Your task to perform on an android device: Search for 3d printed chess sets on Etsy. Image 0: 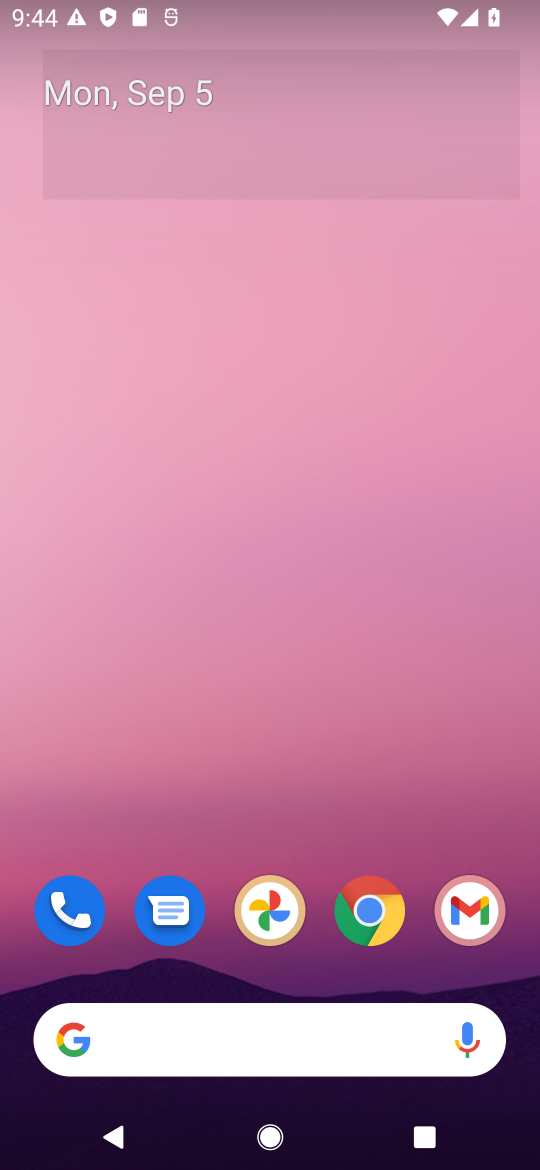
Step 0: click (387, 928)
Your task to perform on an android device: Search for 3d printed chess sets on Etsy. Image 1: 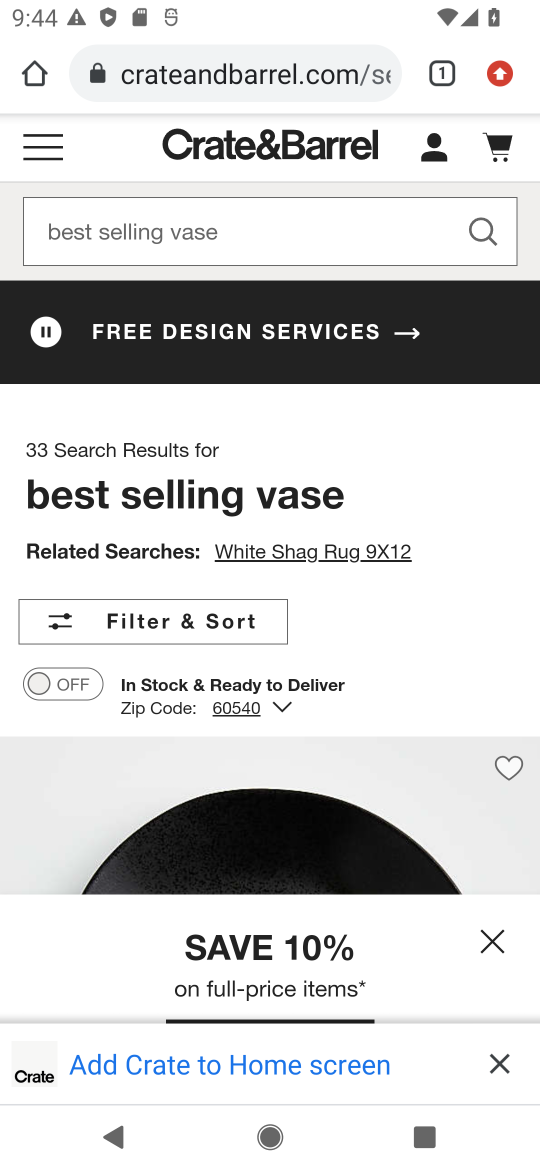
Step 1: click (284, 94)
Your task to perform on an android device: Search for 3d printed chess sets on Etsy. Image 2: 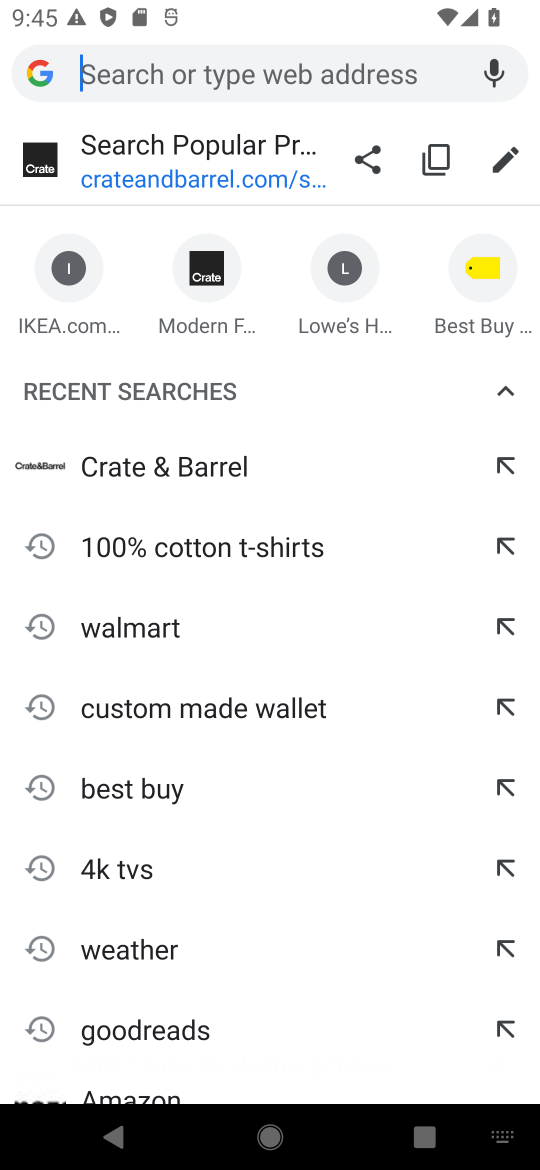
Step 2: click (309, 74)
Your task to perform on an android device: Search for 3d printed chess sets on Etsy. Image 3: 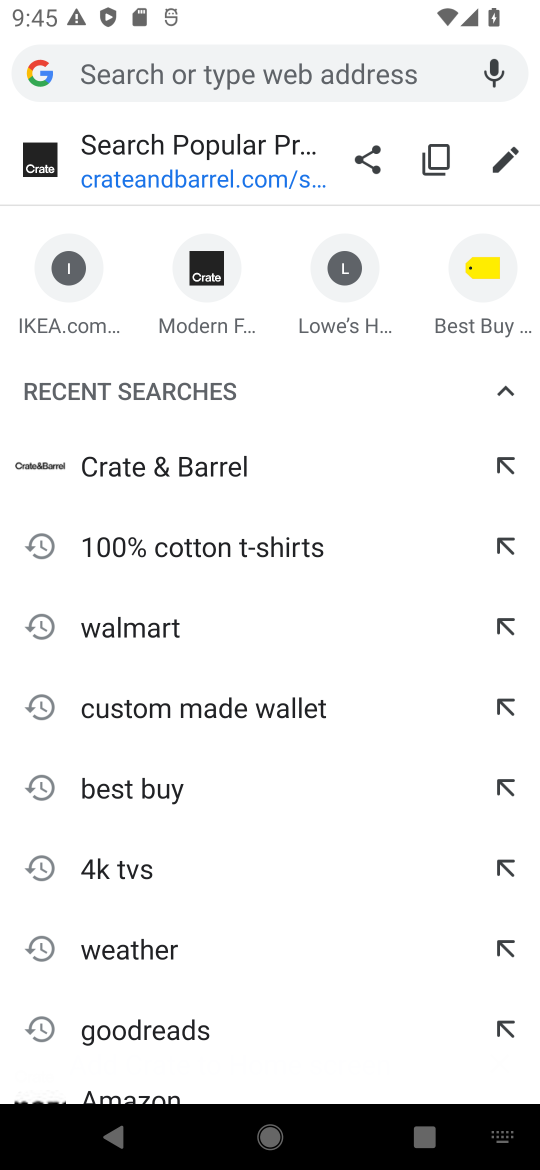
Step 3: type "etsy"
Your task to perform on an android device: Search for 3d printed chess sets on Etsy. Image 4: 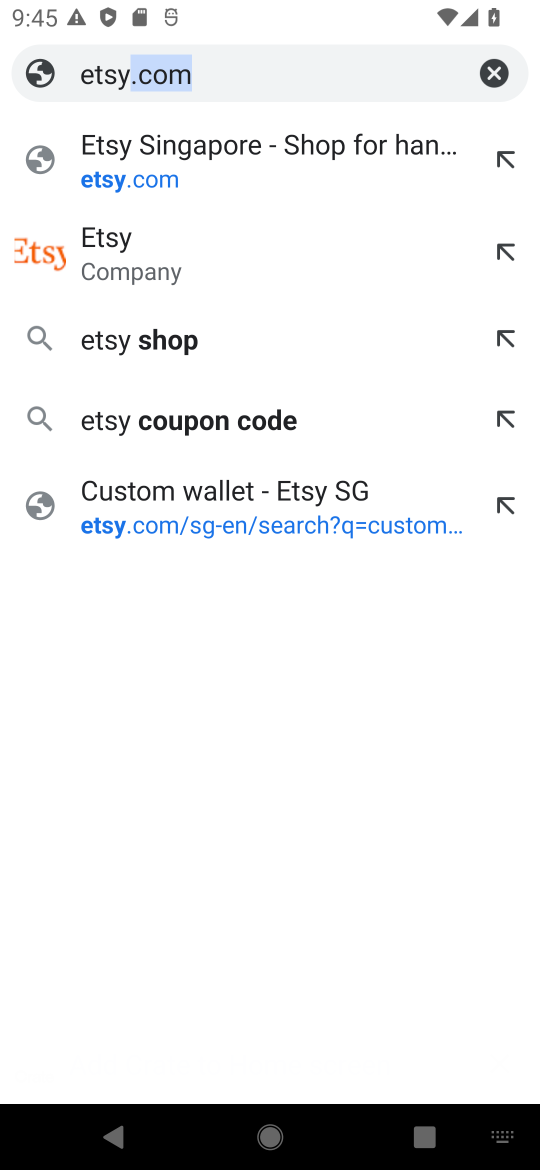
Step 4: click (137, 165)
Your task to perform on an android device: Search for 3d printed chess sets on Etsy. Image 5: 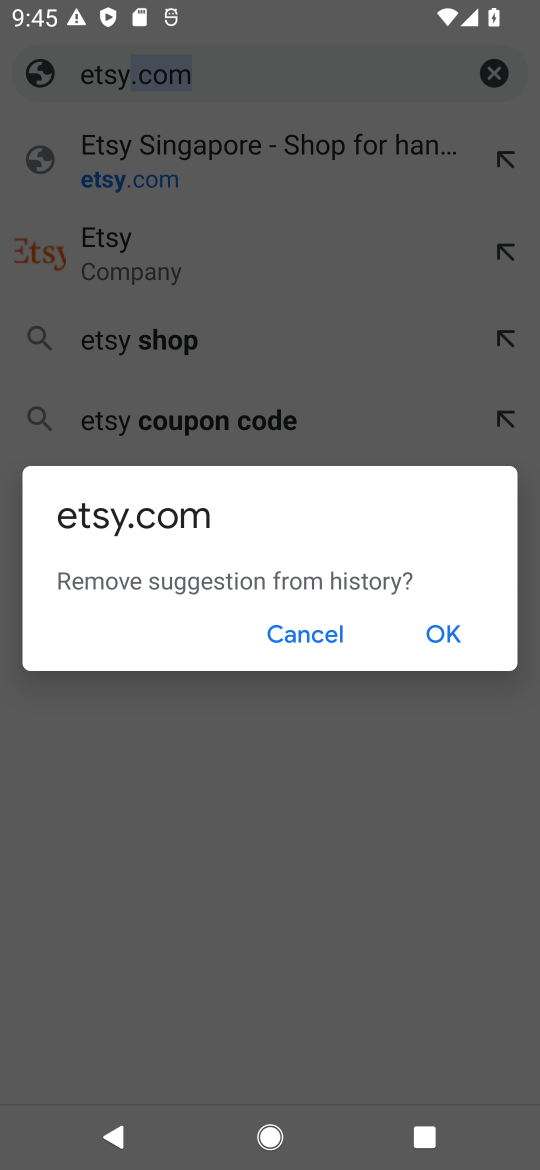
Step 5: click (308, 628)
Your task to perform on an android device: Search for 3d printed chess sets on Etsy. Image 6: 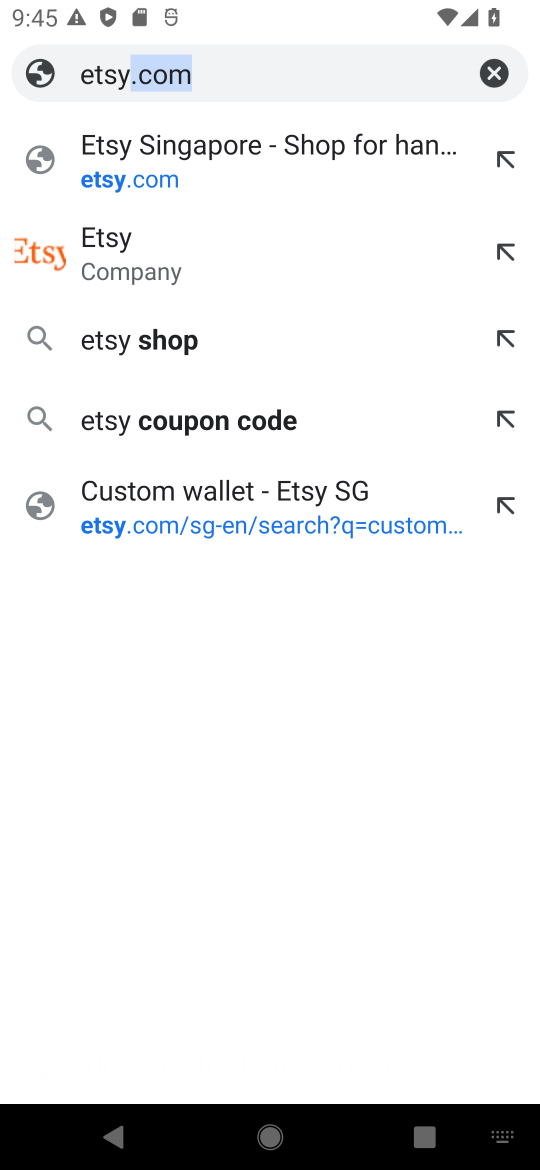
Step 6: click (217, 177)
Your task to perform on an android device: Search for 3d printed chess sets on Etsy. Image 7: 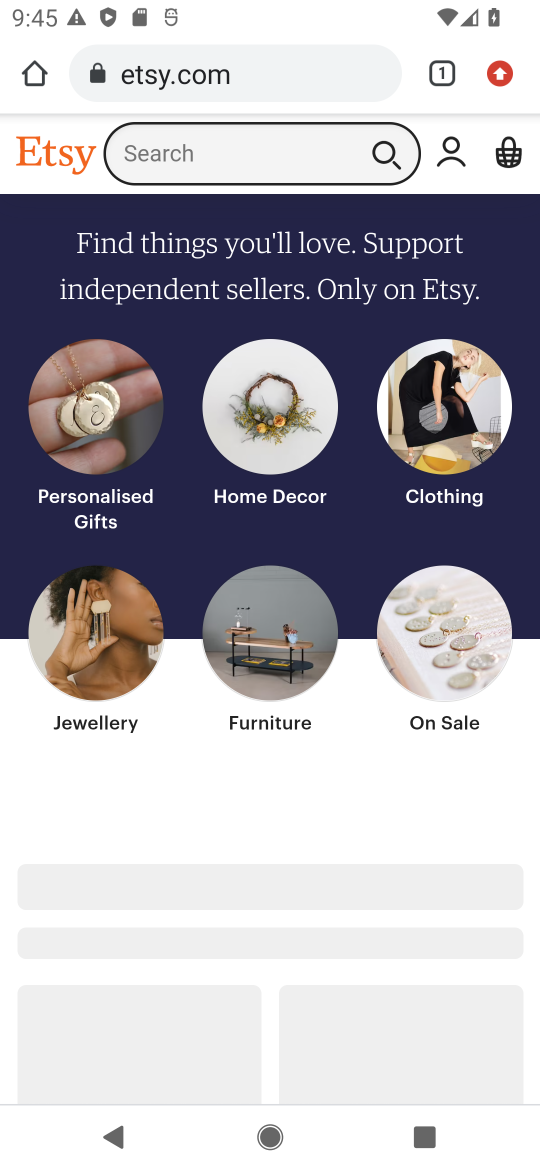
Step 7: click (272, 161)
Your task to perform on an android device: Search for 3d printed chess sets on Etsy. Image 8: 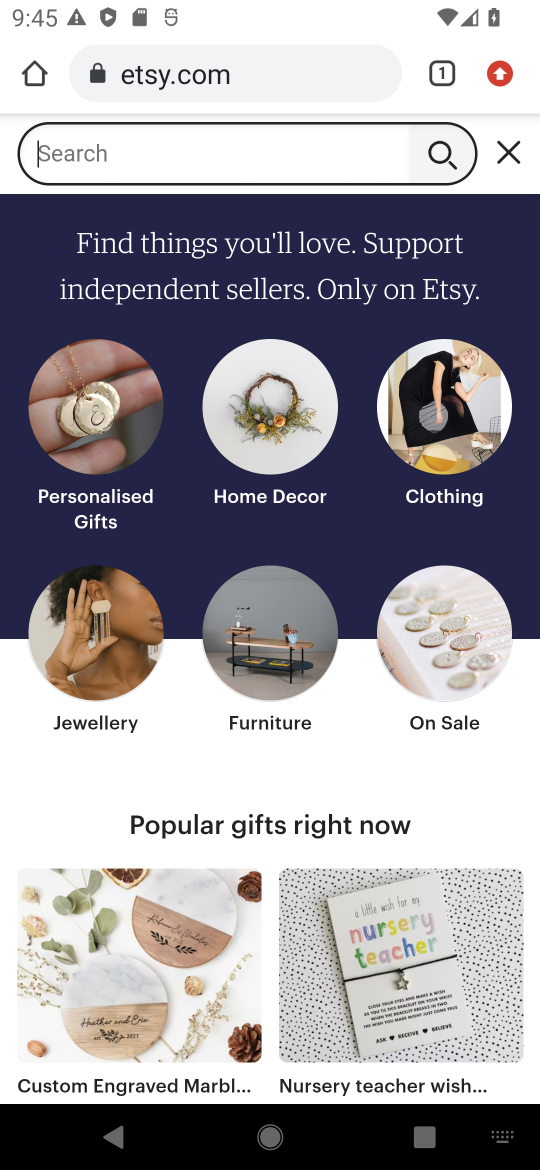
Step 8: type "3d printed chess"
Your task to perform on an android device: Search for 3d printed chess sets on Etsy. Image 9: 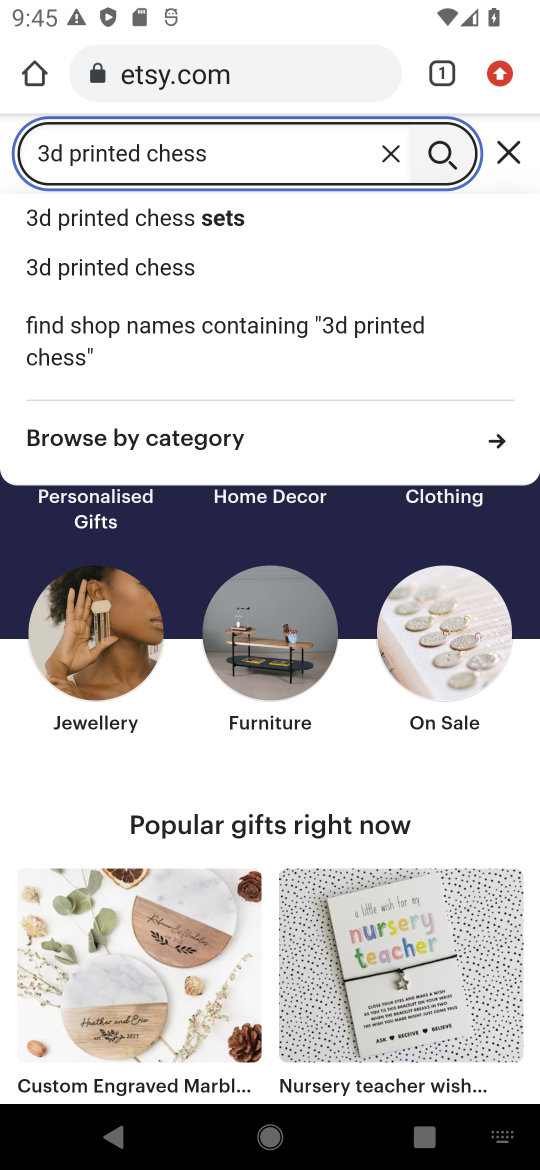
Step 9: press enter
Your task to perform on an android device: Search for 3d printed chess sets on Etsy. Image 10: 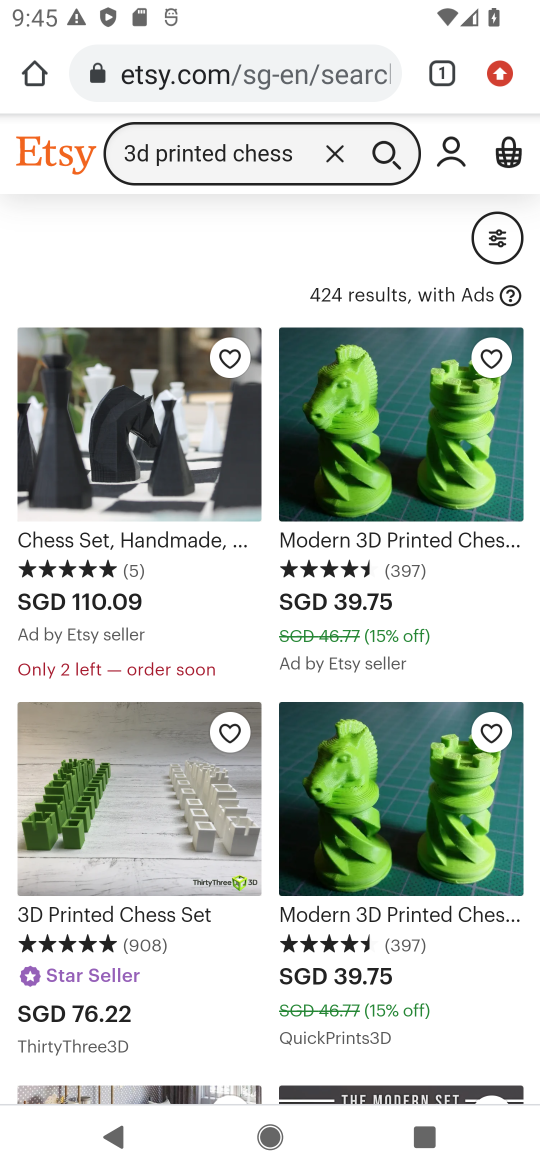
Step 10: task complete